Your task to perform on an android device: change the clock style Image 0: 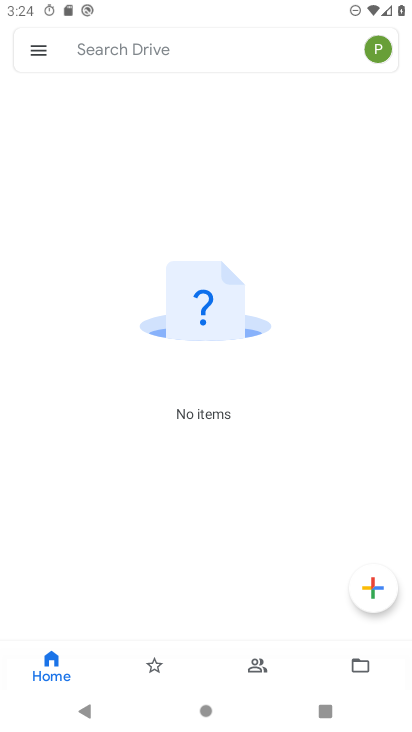
Step 0: press home button
Your task to perform on an android device: change the clock style Image 1: 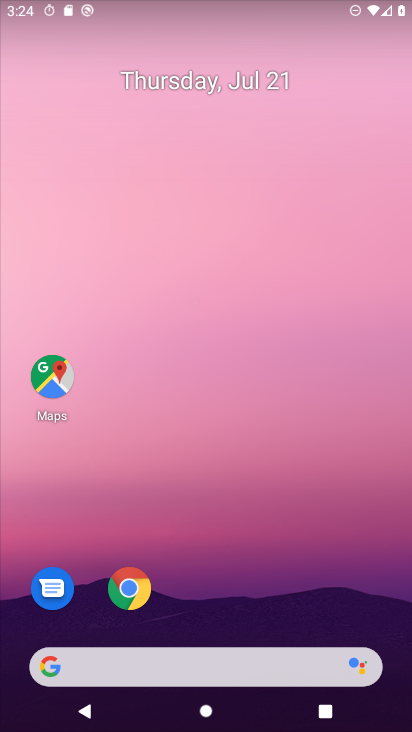
Step 1: drag from (279, 609) to (411, 189)
Your task to perform on an android device: change the clock style Image 2: 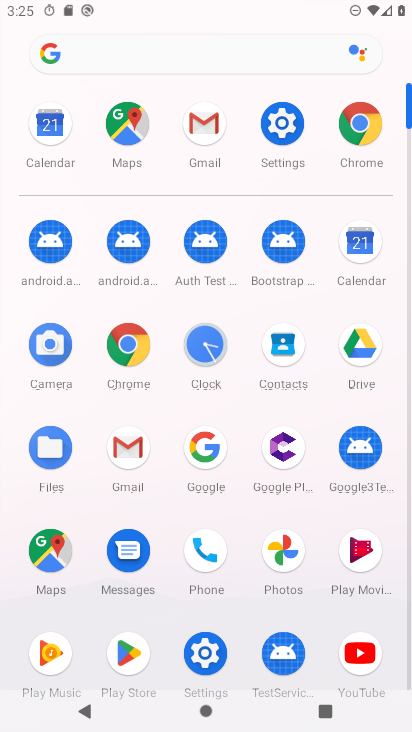
Step 2: click (210, 358)
Your task to perform on an android device: change the clock style Image 3: 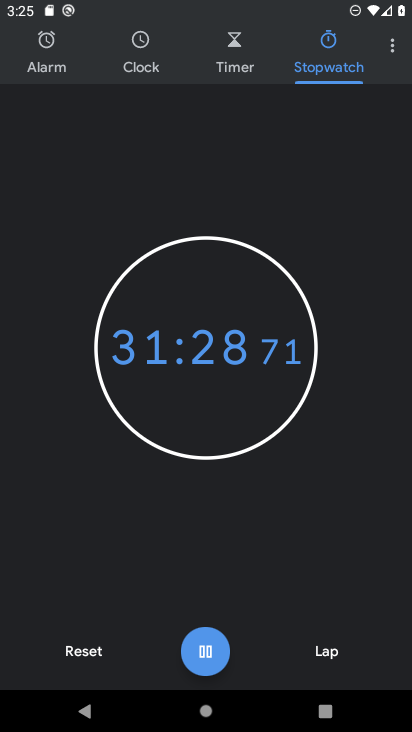
Step 3: click (382, 45)
Your task to perform on an android device: change the clock style Image 4: 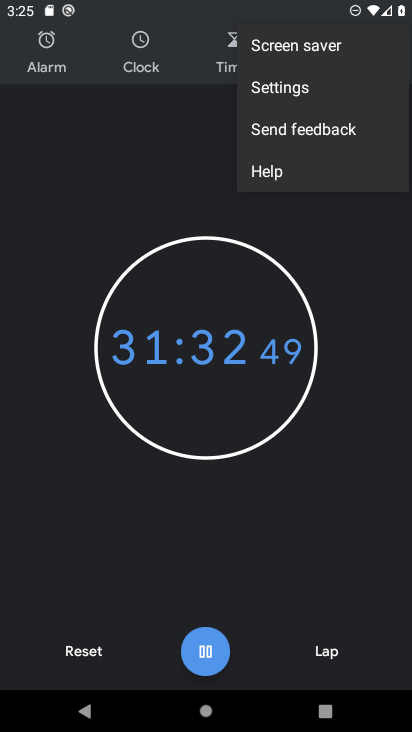
Step 4: click (295, 93)
Your task to perform on an android device: change the clock style Image 5: 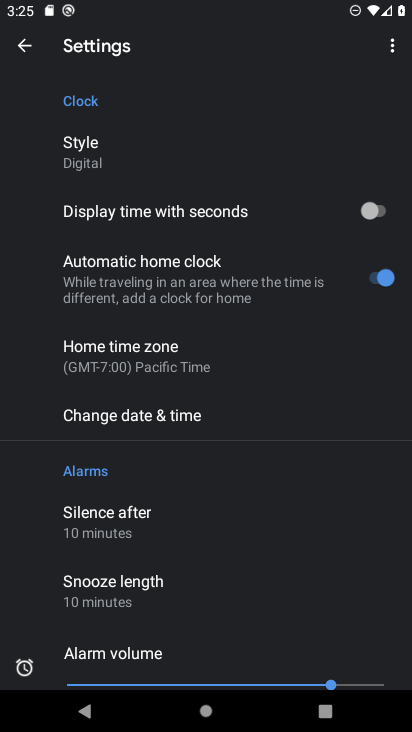
Step 5: click (171, 160)
Your task to perform on an android device: change the clock style Image 6: 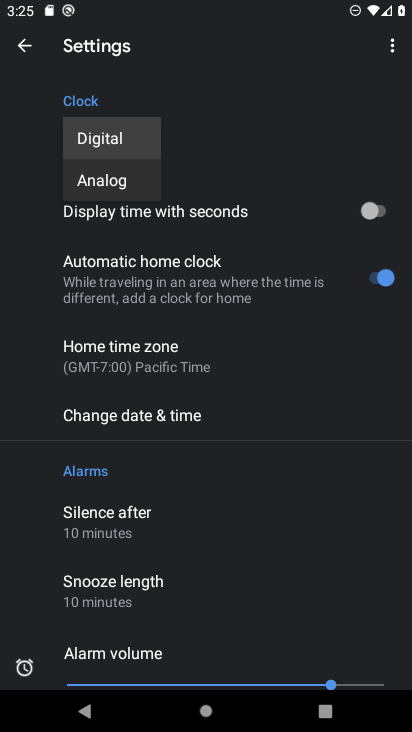
Step 6: click (121, 188)
Your task to perform on an android device: change the clock style Image 7: 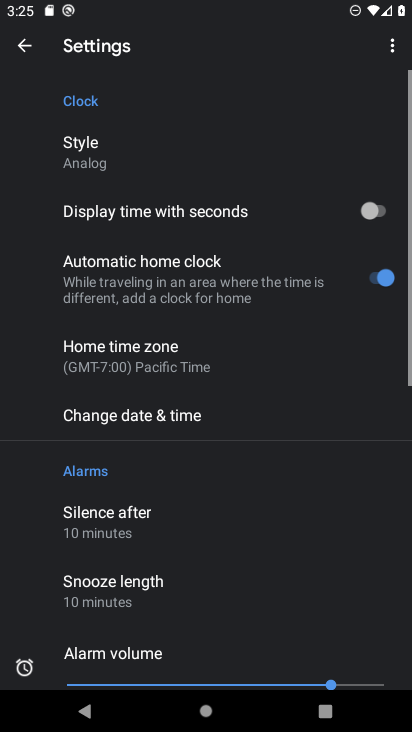
Step 7: task complete